Your task to perform on an android device: check google app version Image 0: 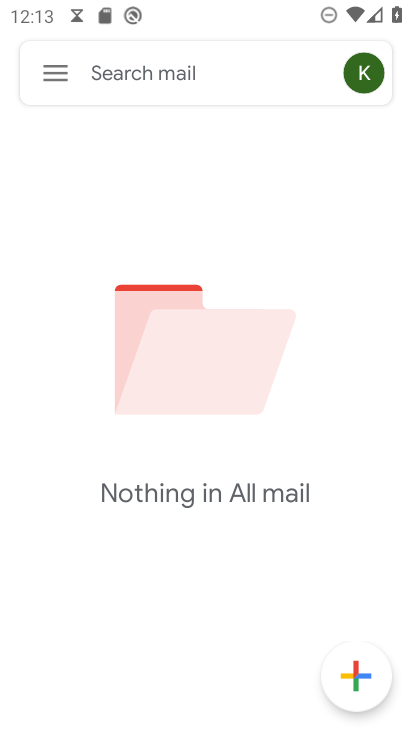
Step 0: press home button
Your task to perform on an android device: check google app version Image 1: 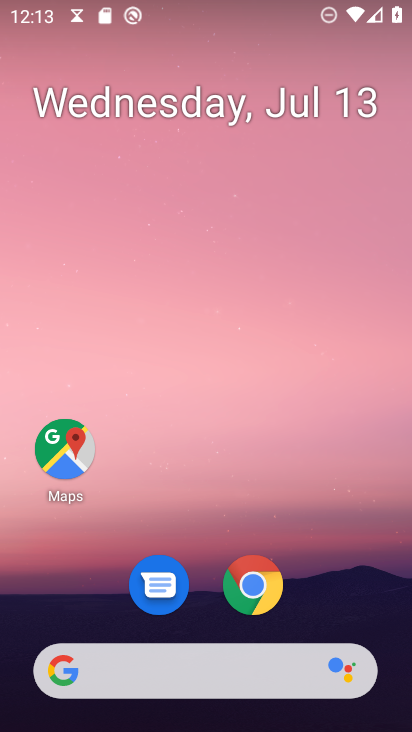
Step 1: drag from (211, 665) to (285, 137)
Your task to perform on an android device: check google app version Image 2: 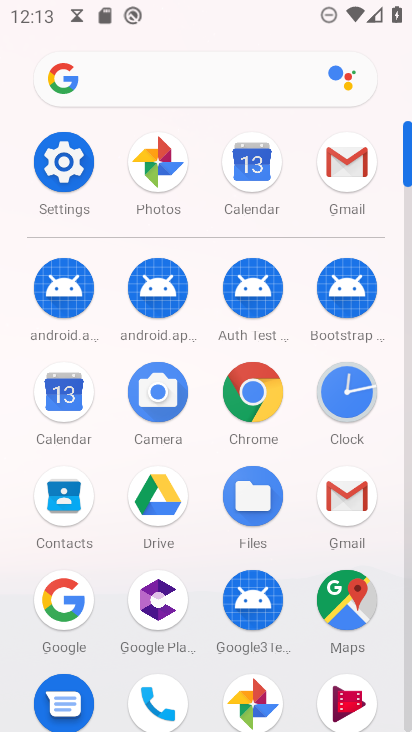
Step 2: click (75, 599)
Your task to perform on an android device: check google app version Image 3: 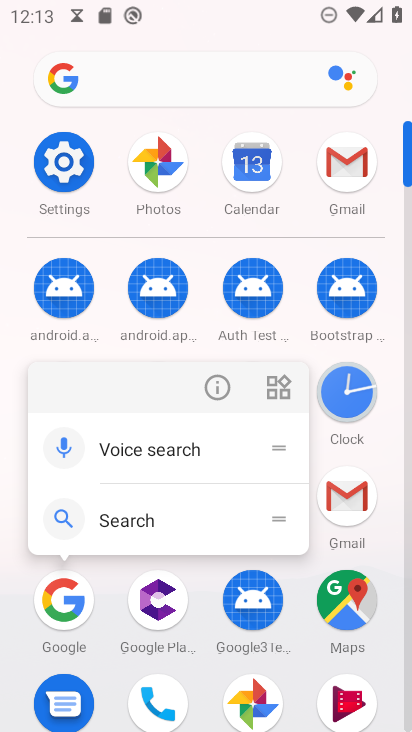
Step 3: click (217, 386)
Your task to perform on an android device: check google app version Image 4: 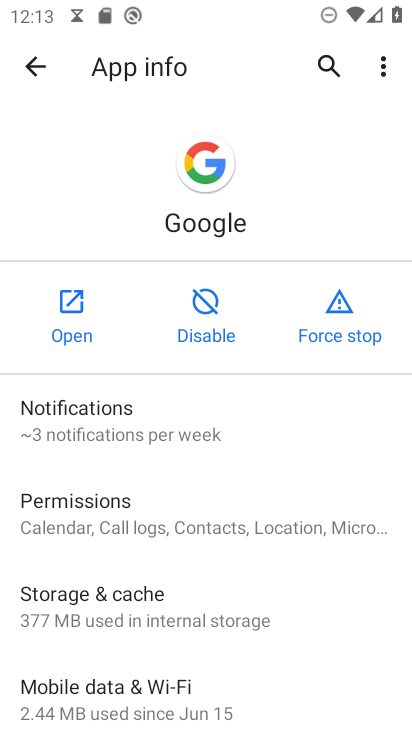
Step 4: drag from (250, 678) to (411, 78)
Your task to perform on an android device: check google app version Image 5: 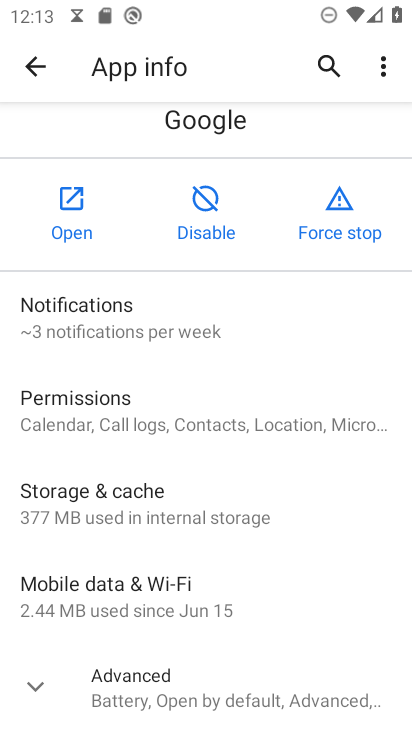
Step 5: click (135, 681)
Your task to perform on an android device: check google app version Image 6: 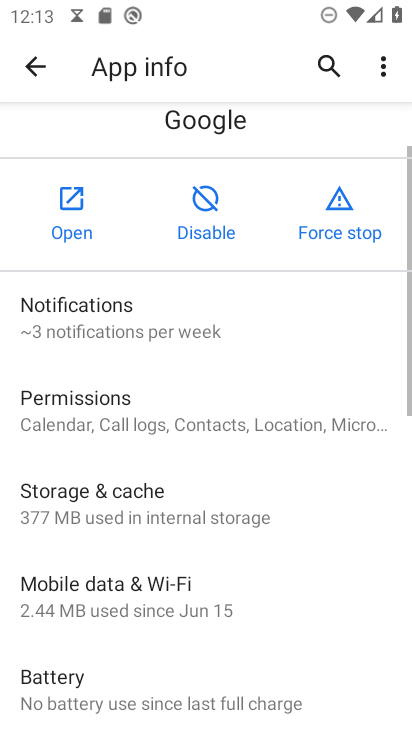
Step 6: task complete